Your task to perform on an android device: Open settings Image 0: 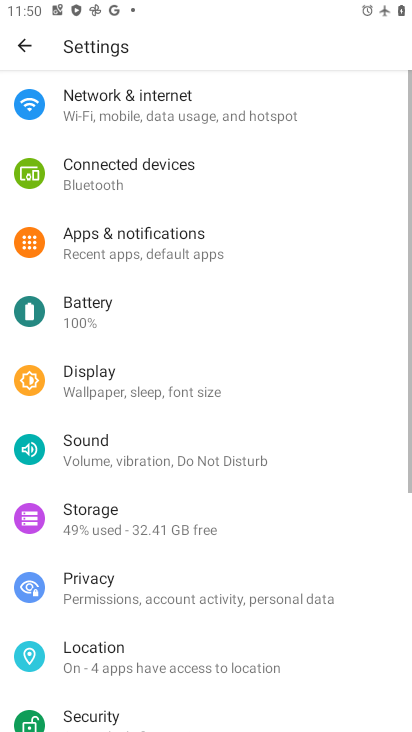
Step 0: drag from (216, 564) to (194, 309)
Your task to perform on an android device: Open settings Image 1: 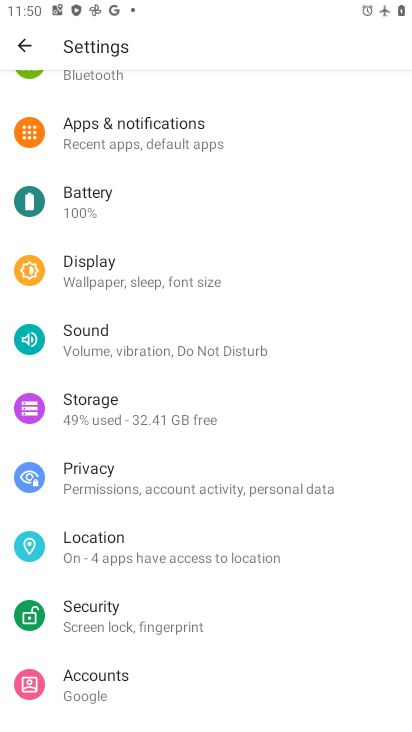
Step 1: task complete